Your task to perform on an android device: Open Chrome and go to settings Image 0: 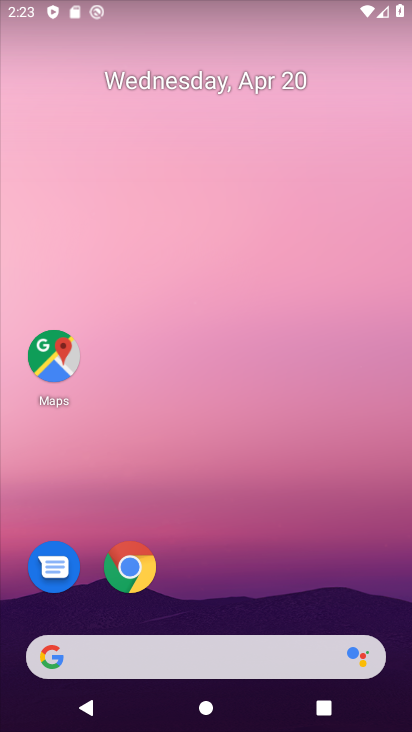
Step 0: click (132, 563)
Your task to perform on an android device: Open Chrome and go to settings Image 1: 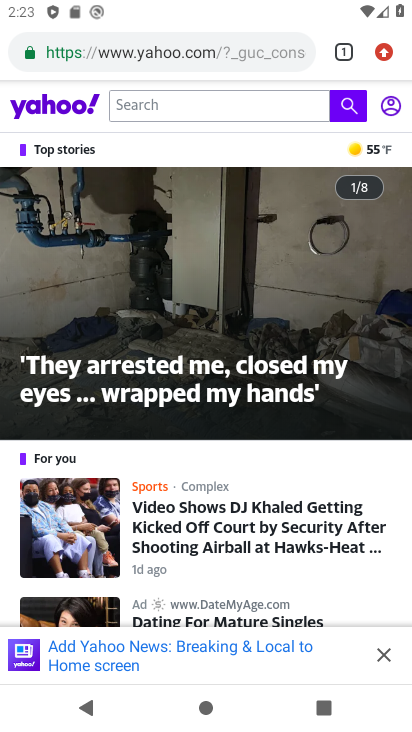
Step 1: task complete